Your task to perform on an android device: see sites visited before in the chrome app Image 0: 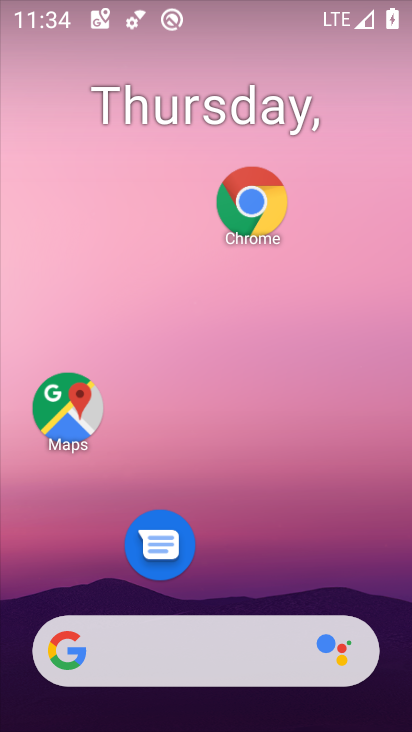
Step 0: drag from (225, 553) to (240, 10)
Your task to perform on an android device: see sites visited before in the chrome app Image 1: 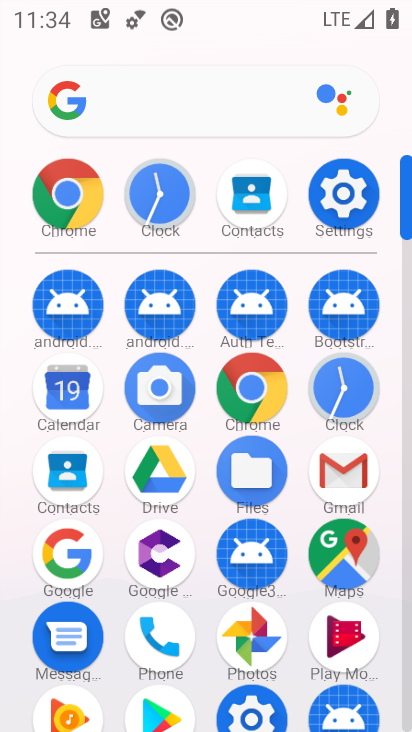
Step 1: click (67, 229)
Your task to perform on an android device: see sites visited before in the chrome app Image 2: 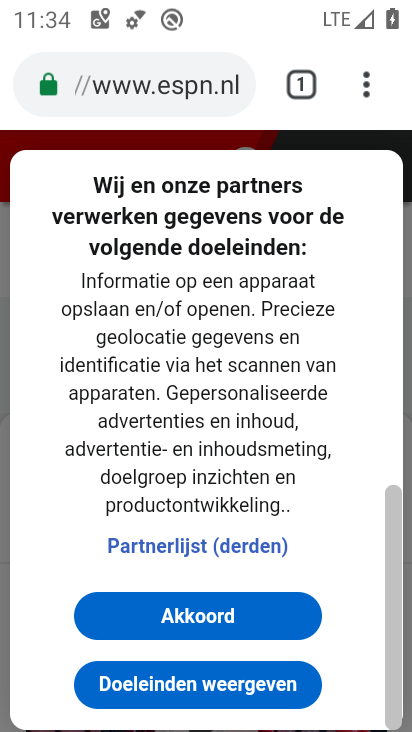
Step 2: click (362, 86)
Your task to perform on an android device: see sites visited before in the chrome app Image 3: 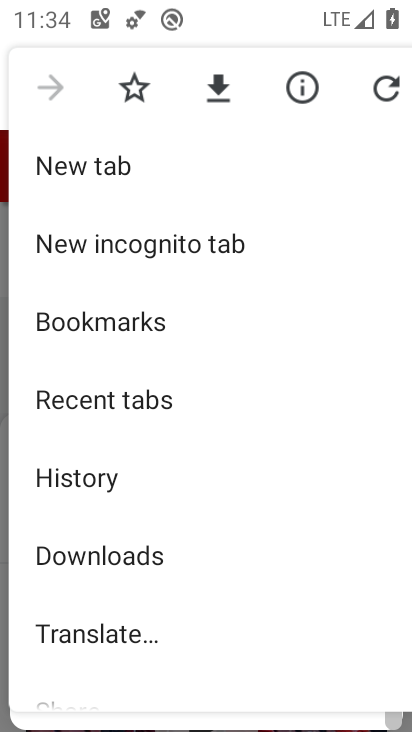
Step 3: click (84, 486)
Your task to perform on an android device: see sites visited before in the chrome app Image 4: 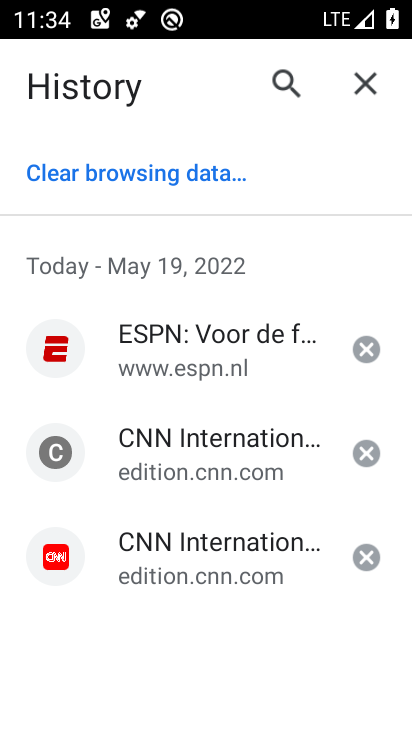
Step 4: task complete